Your task to perform on an android device: Open settings Image 0: 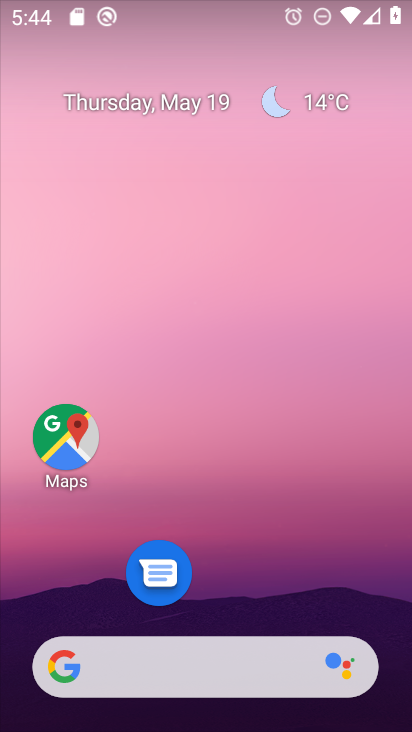
Step 0: drag from (239, 594) to (187, 92)
Your task to perform on an android device: Open settings Image 1: 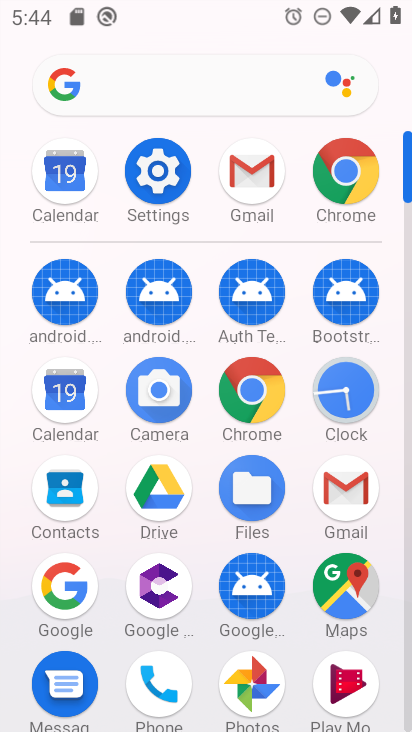
Step 1: click (162, 172)
Your task to perform on an android device: Open settings Image 2: 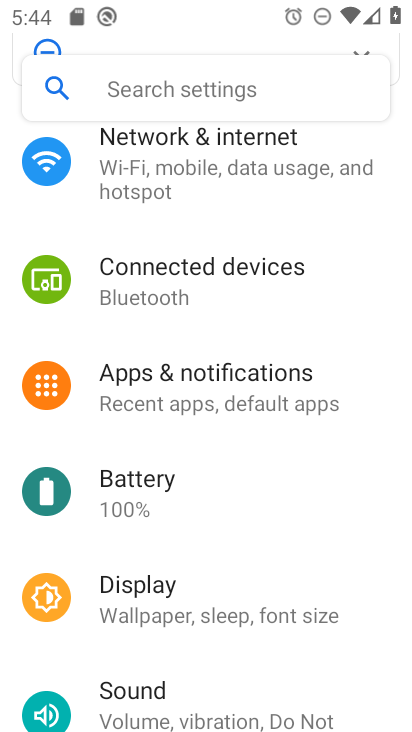
Step 2: task complete